Your task to perform on an android device: Turn on the flashlight Image 0: 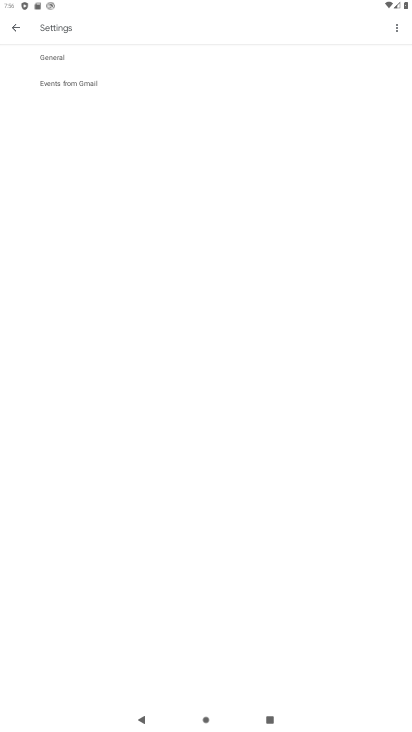
Step 0: press home button
Your task to perform on an android device: Turn on the flashlight Image 1: 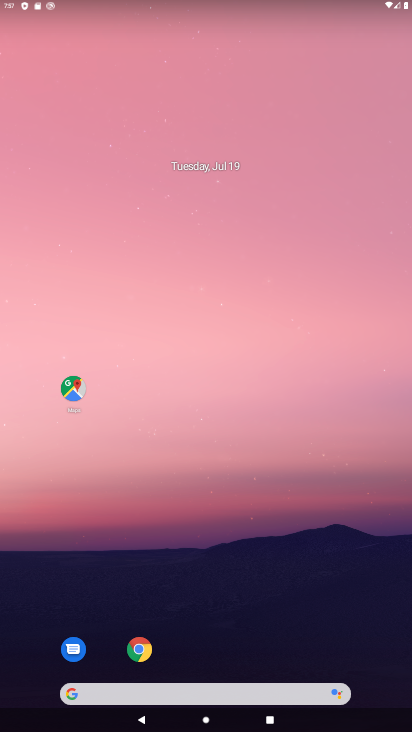
Step 1: drag from (195, 638) to (252, 2)
Your task to perform on an android device: Turn on the flashlight Image 2: 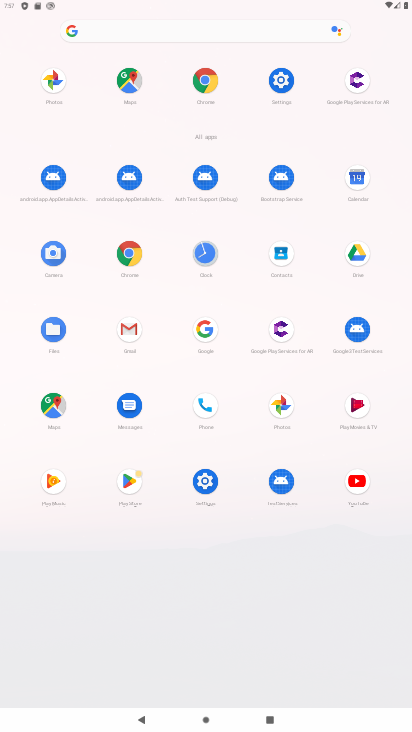
Step 2: click (281, 108)
Your task to perform on an android device: Turn on the flashlight Image 3: 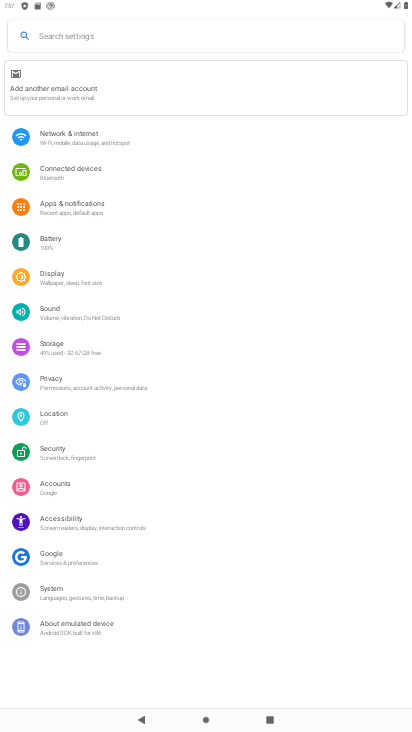
Step 3: click (81, 37)
Your task to perform on an android device: Turn on the flashlight Image 4: 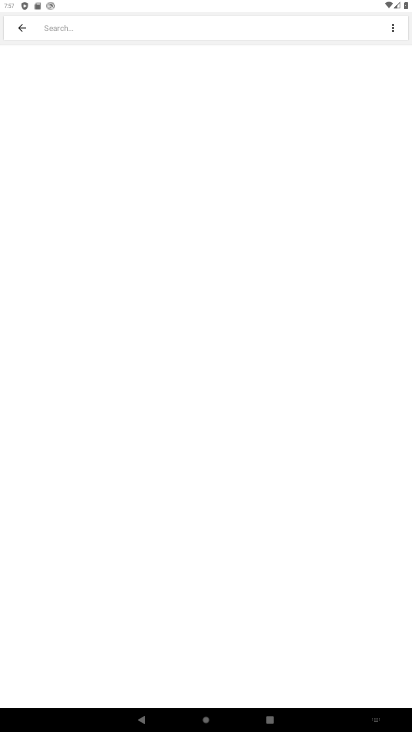
Step 4: type "flashlight"
Your task to perform on an android device: Turn on the flashlight Image 5: 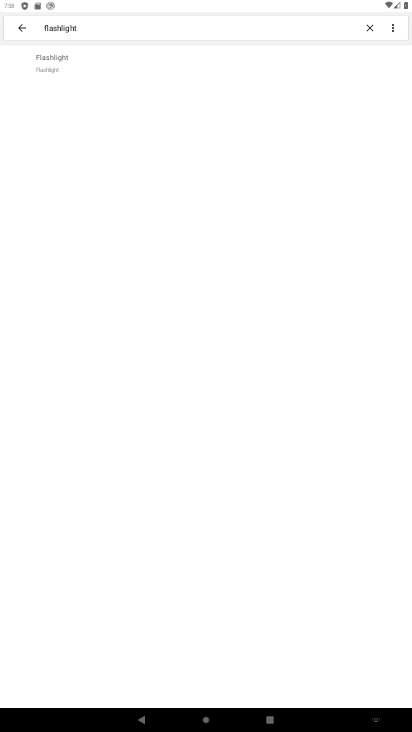
Step 5: click (75, 72)
Your task to perform on an android device: Turn on the flashlight Image 6: 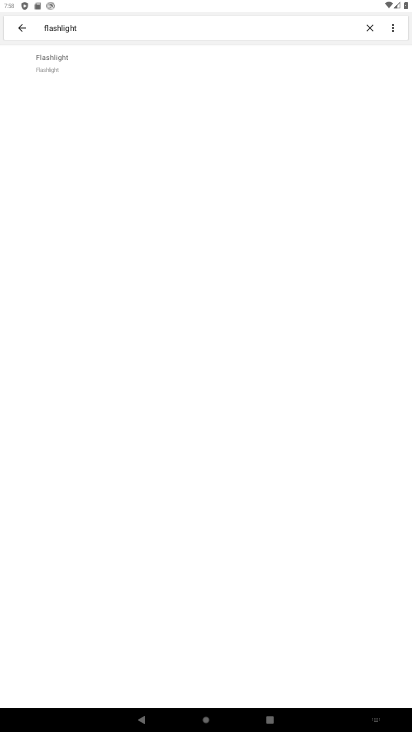
Step 6: click (73, 59)
Your task to perform on an android device: Turn on the flashlight Image 7: 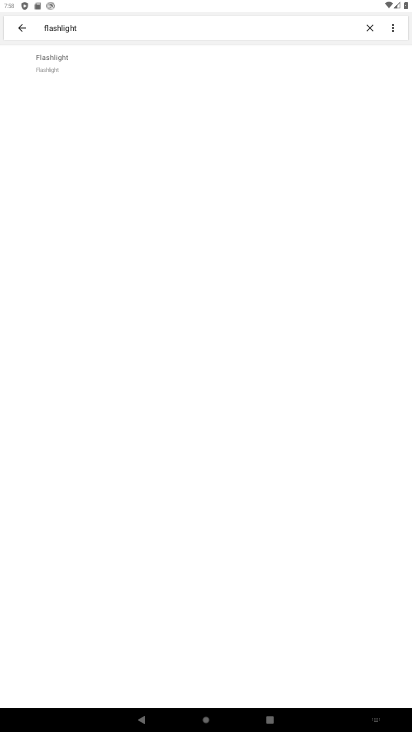
Step 7: task complete